Your task to perform on an android device: Go to ESPN.com Image 0: 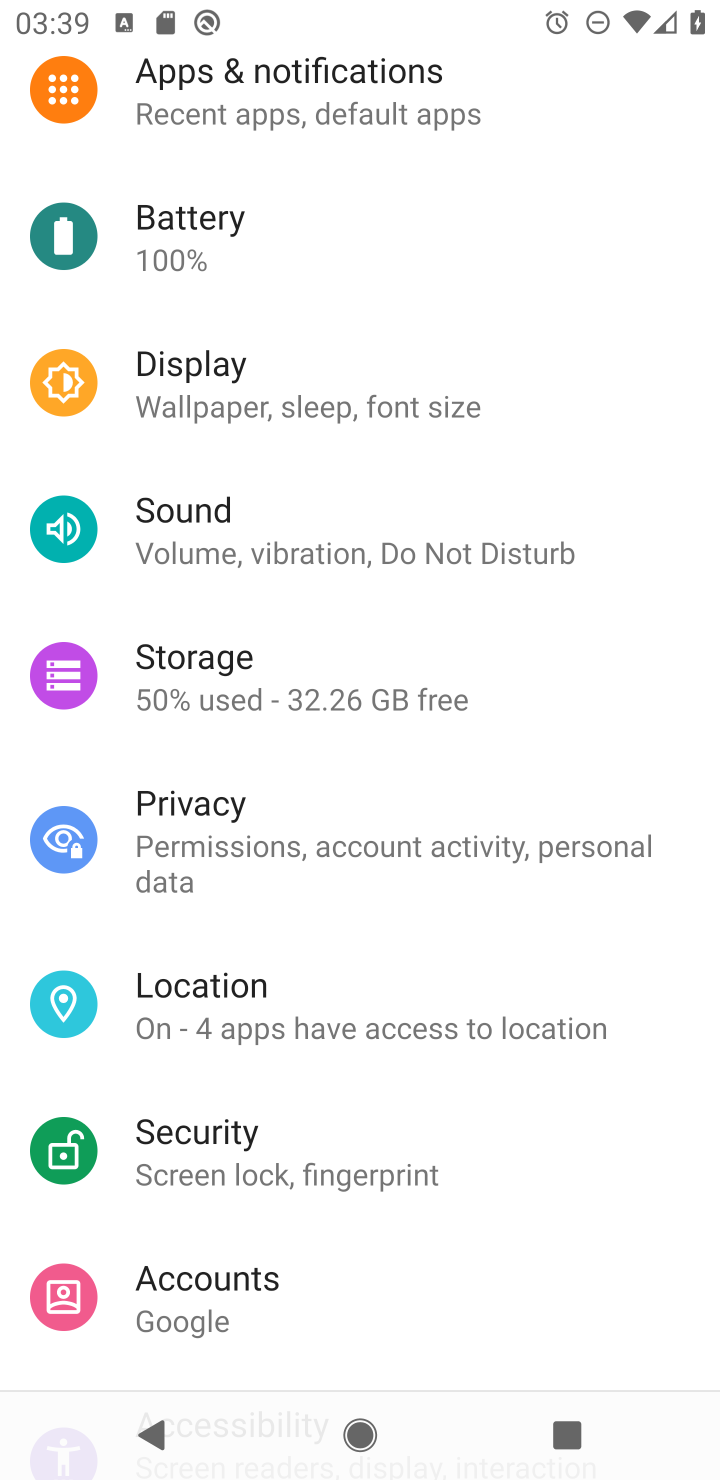
Step 0: press home button
Your task to perform on an android device: Go to ESPN.com Image 1: 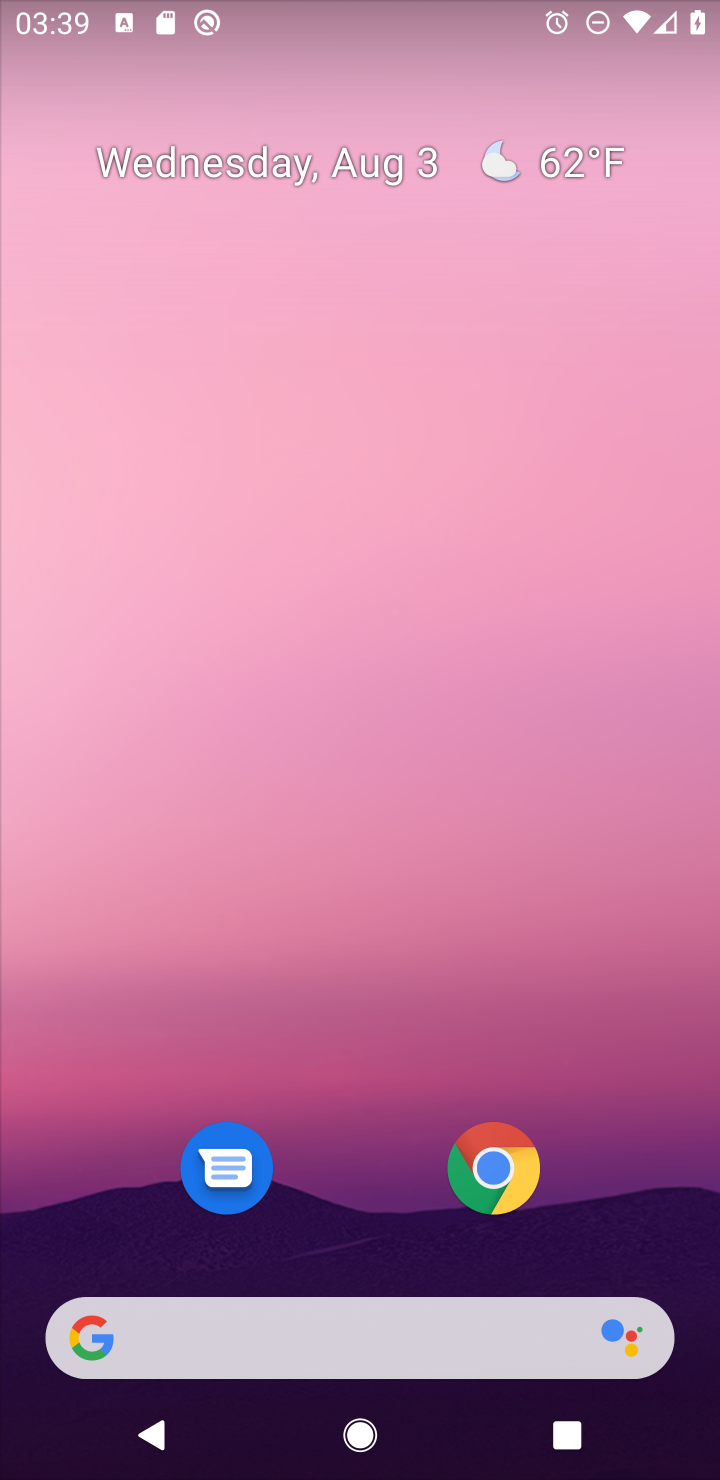
Step 1: click (491, 1174)
Your task to perform on an android device: Go to ESPN.com Image 2: 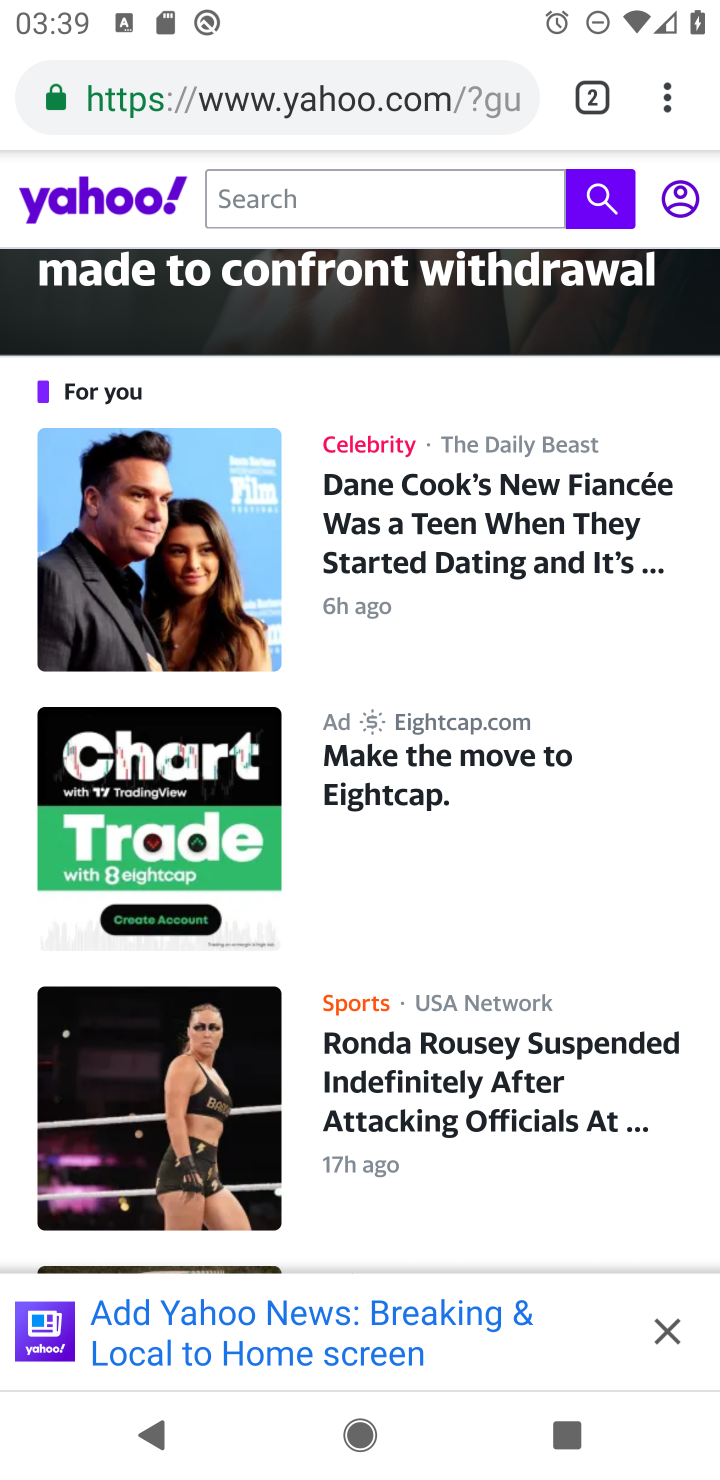
Step 2: click (522, 84)
Your task to perform on an android device: Go to ESPN.com Image 3: 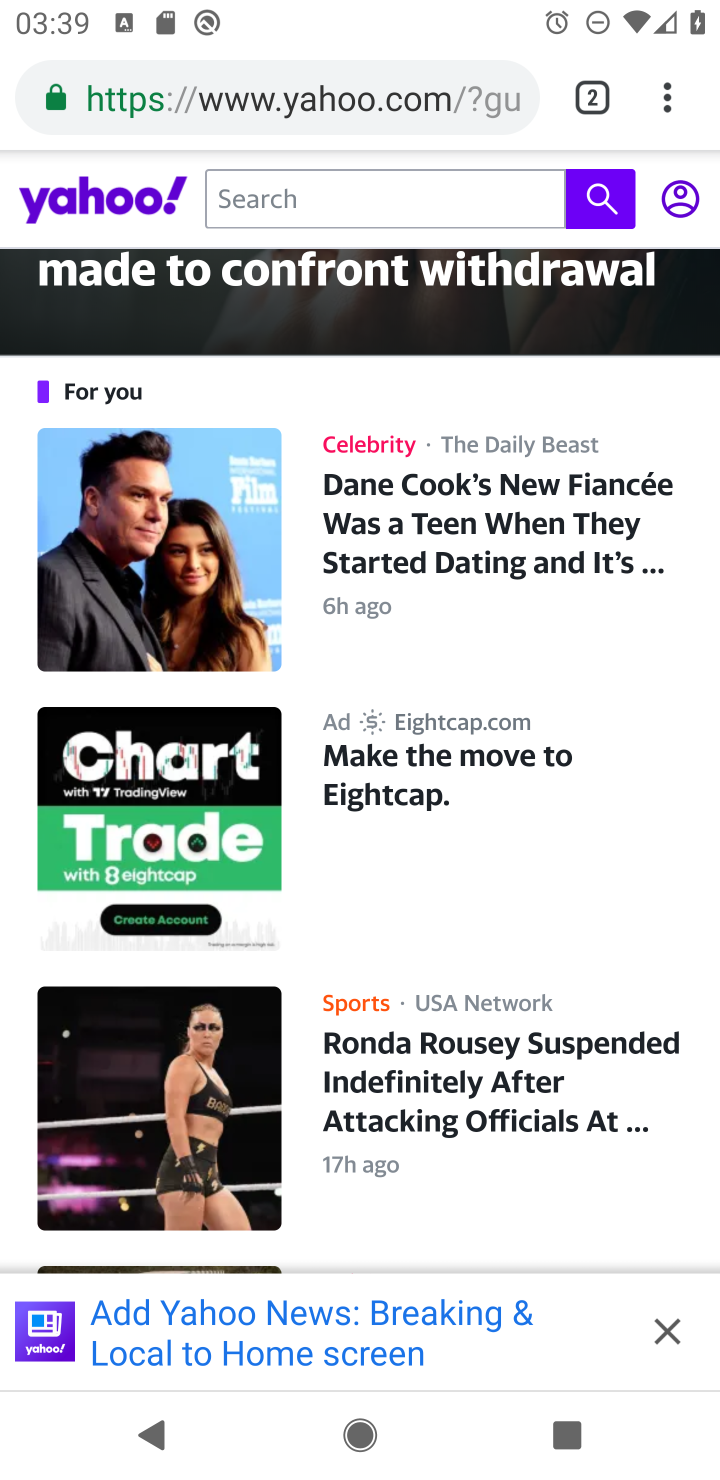
Step 3: click (497, 73)
Your task to perform on an android device: Go to ESPN.com Image 4: 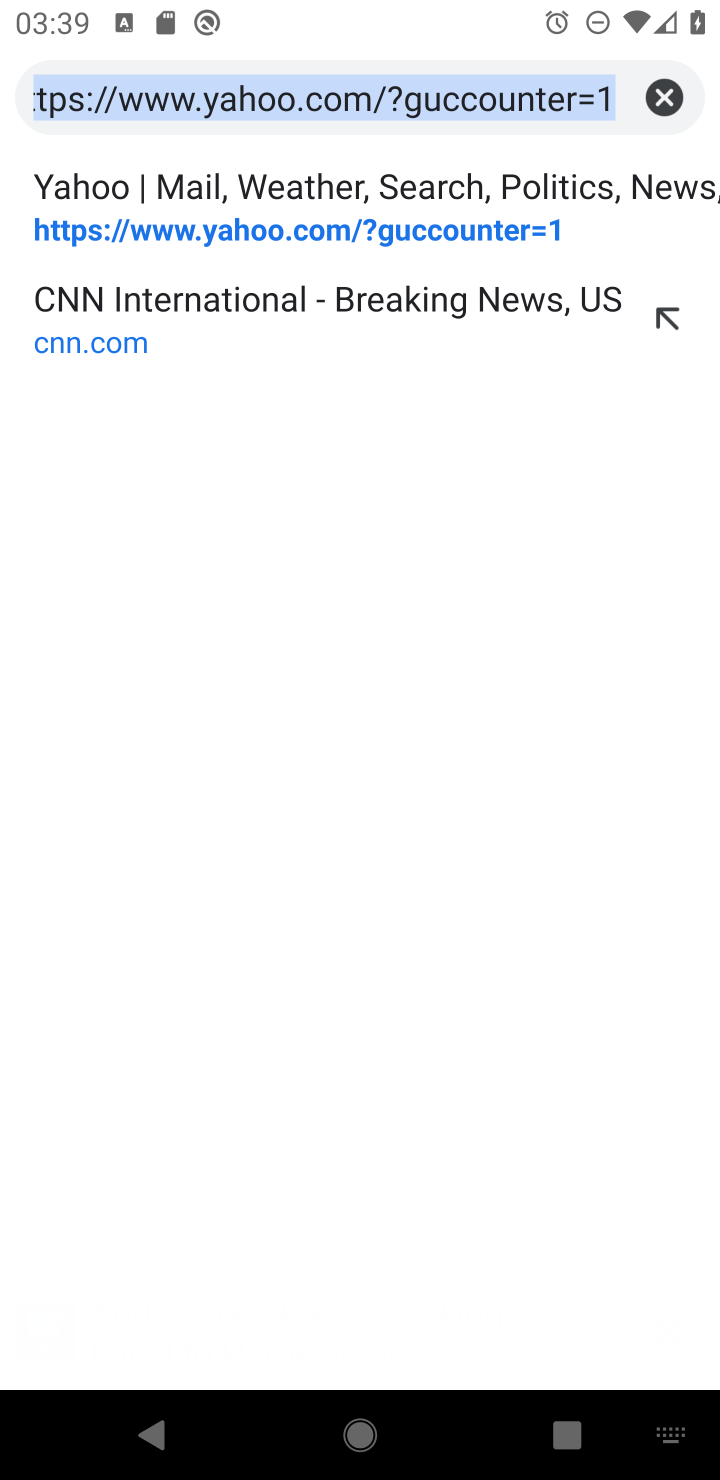
Step 4: click (545, 86)
Your task to perform on an android device: Go to ESPN.com Image 5: 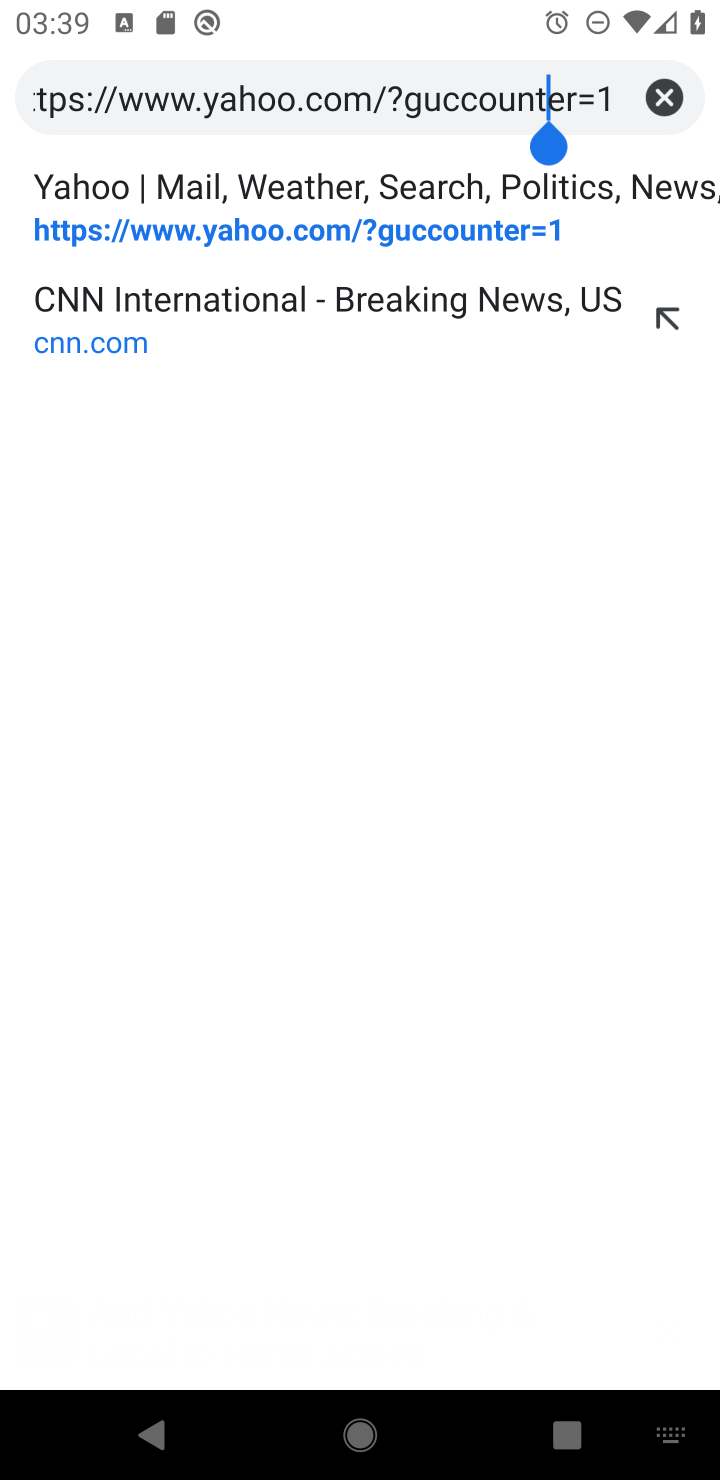
Step 5: click (653, 93)
Your task to perform on an android device: Go to ESPN.com Image 6: 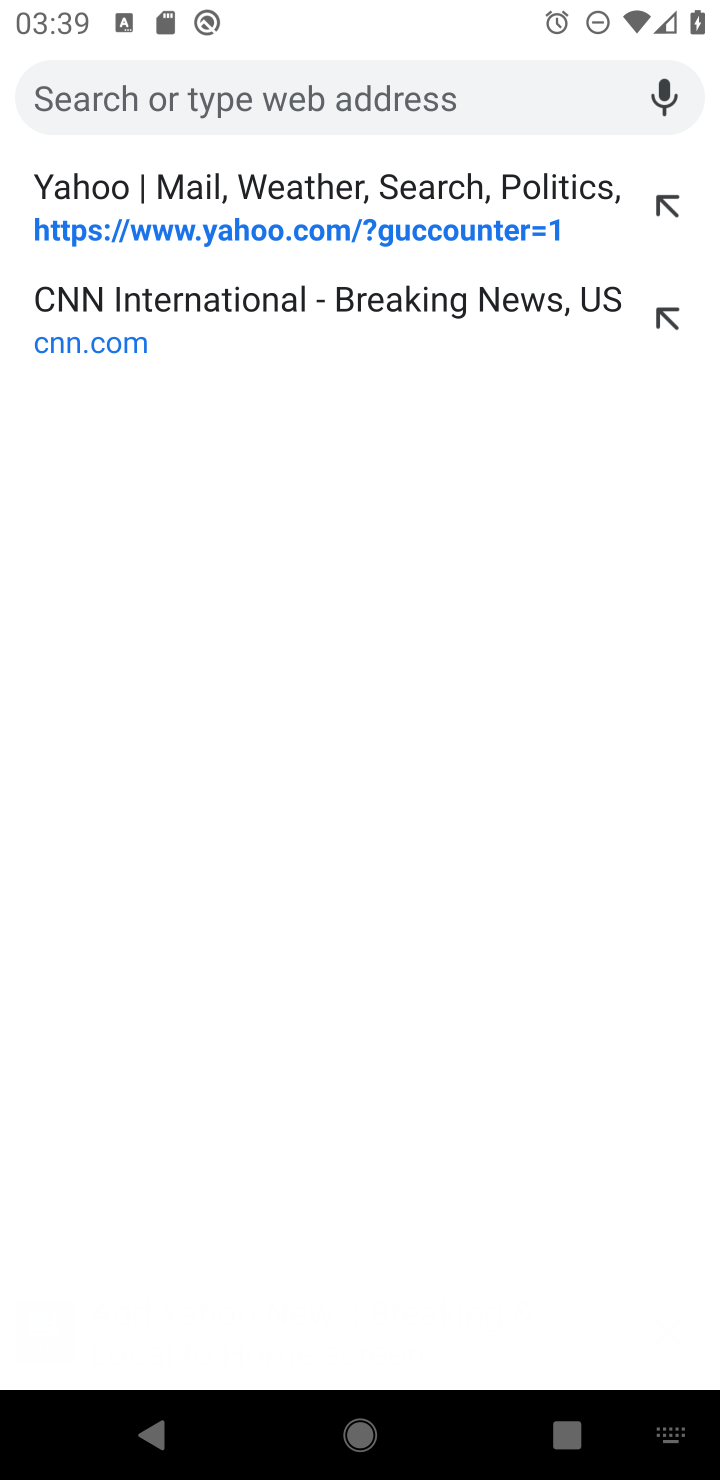
Step 6: type "ESPN.com"
Your task to perform on an android device: Go to ESPN.com Image 7: 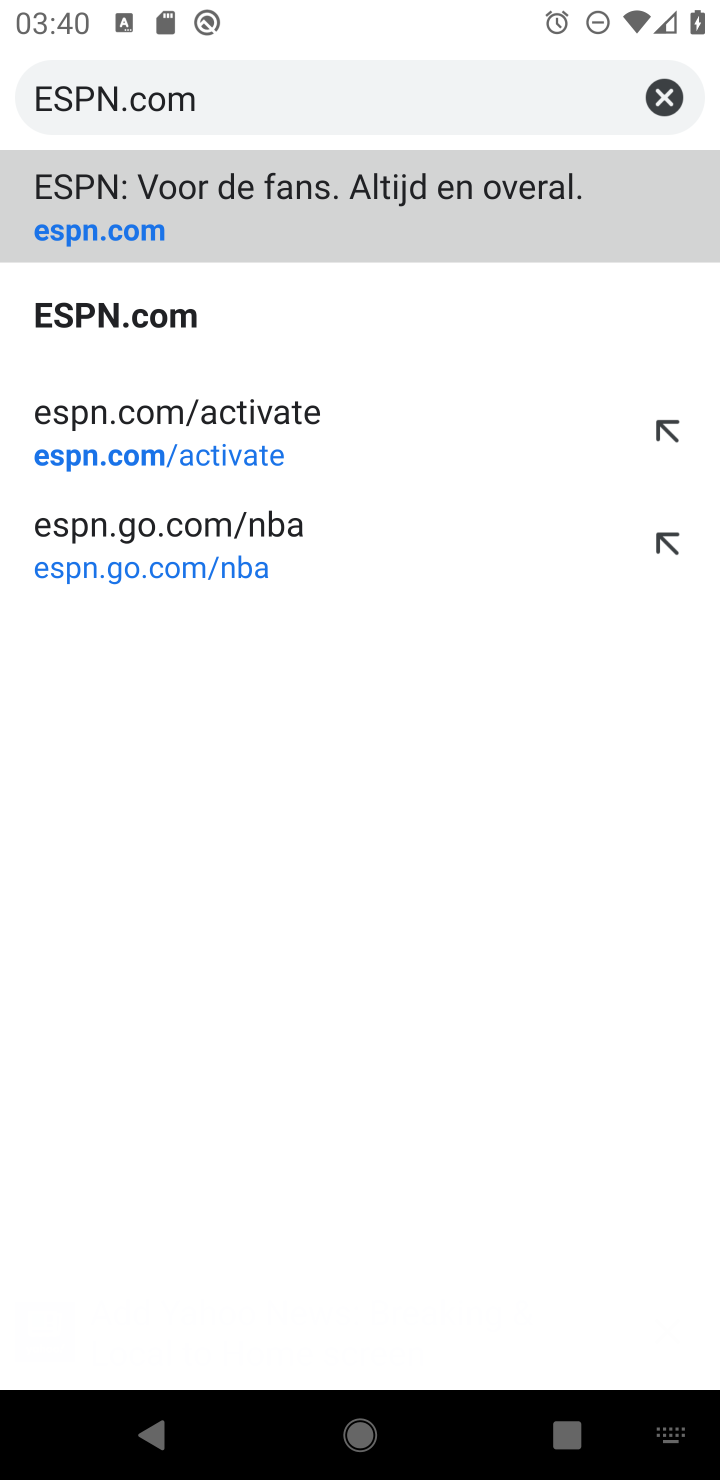
Step 7: click (201, 211)
Your task to perform on an android device: Go to ESPN.com Image 8: 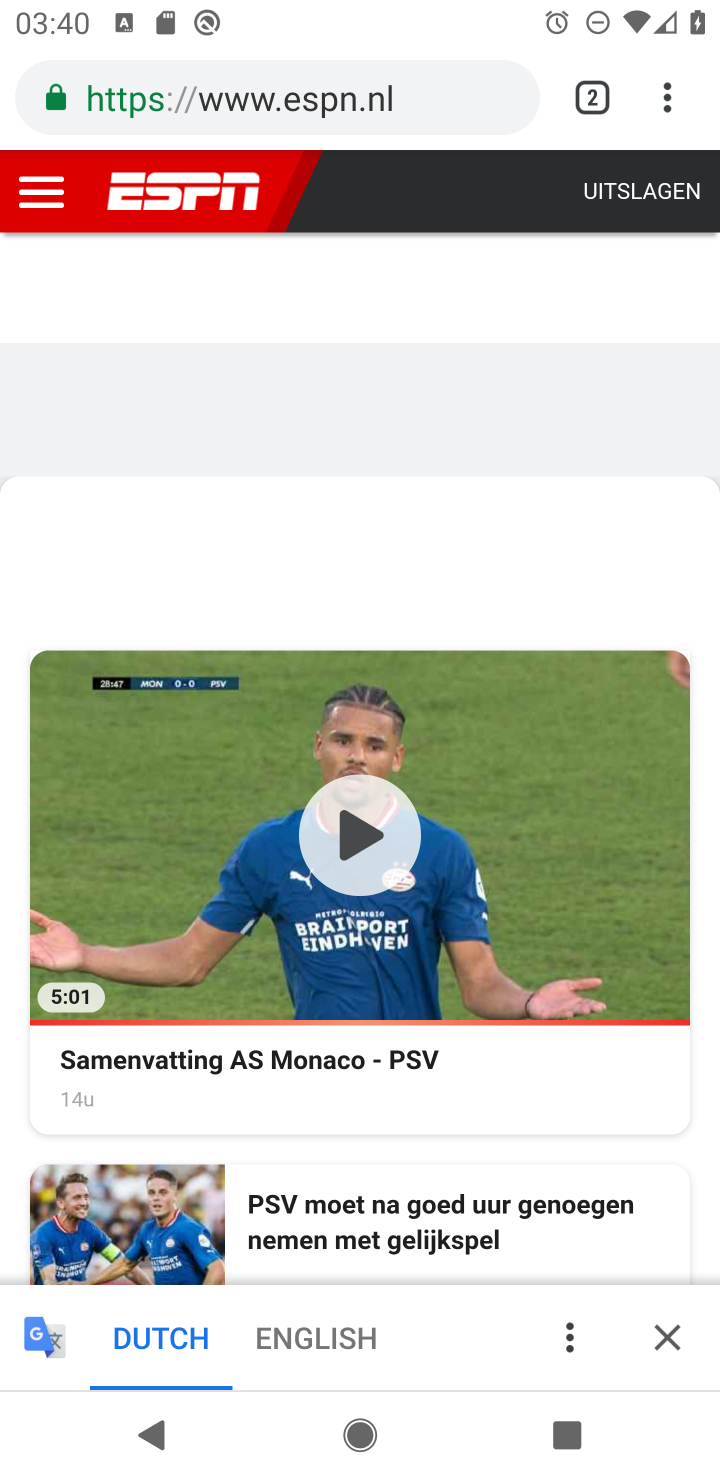
Step 8: task complete